Your task to perform on an android device: toggle location history Image 0: 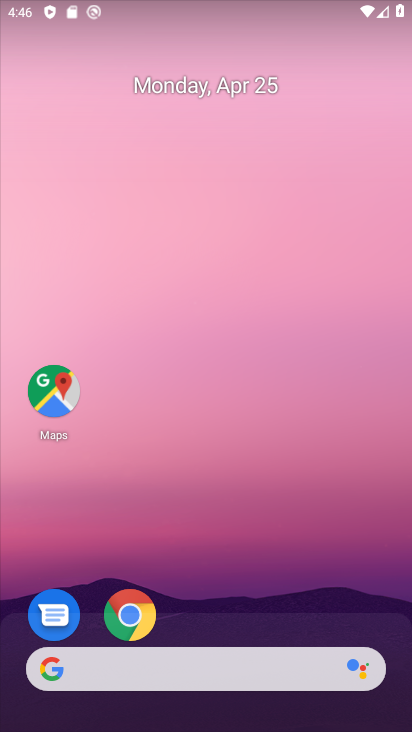
Step 0: drag from (246, 418) to (274, 7)
Your task to perform on an android device: toggle location history Image 1: 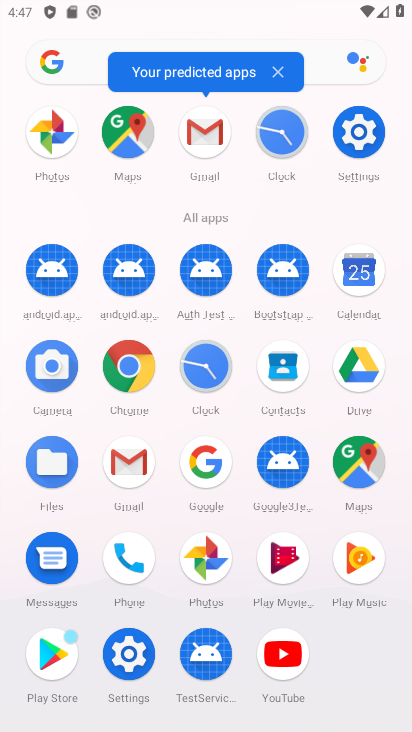
Step 1: click (347, 159)
Your task to perform on an android device: toggle location history Image 2: 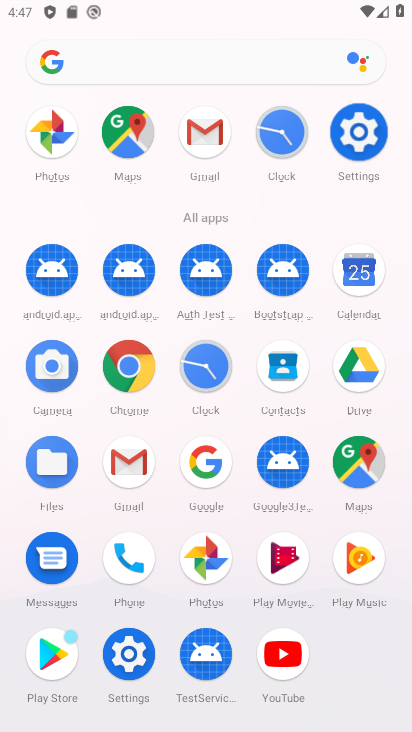
Step 2: click (356, 140)
Your task to perform on an android device: toggle location history Image 3: 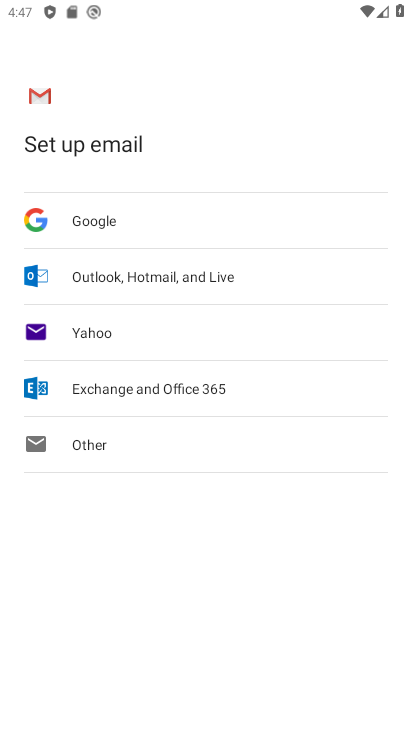
Step 3: press back button
Your task to perform on an android device: toggle location history Image 4: 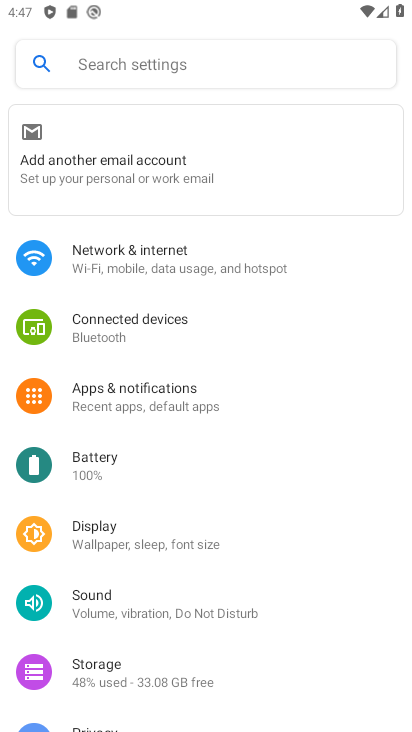
Step 4: drag from (181, 610) to (228, 203)
Your task to perform on an android device: toggle location history Image 5: 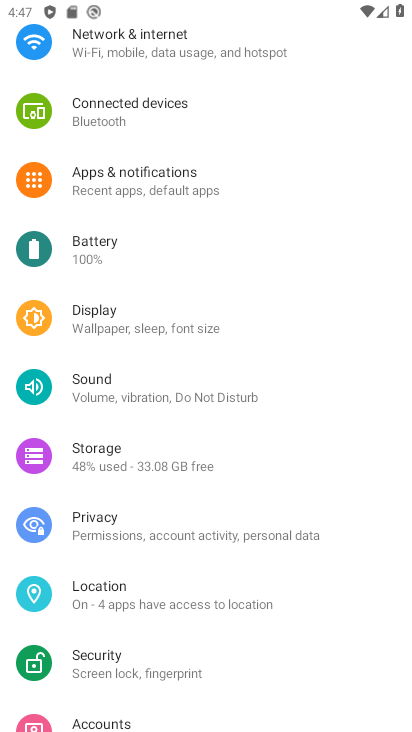
Step 5: click (233, 596)
Your task to perform on an android device: toggle location history Image 6: 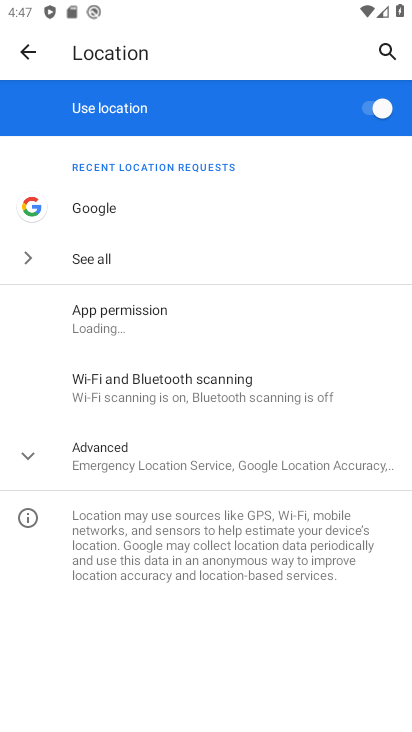
Step 6: click (371, 116)
Your task to perform on an android device: toggle location history Image 7: 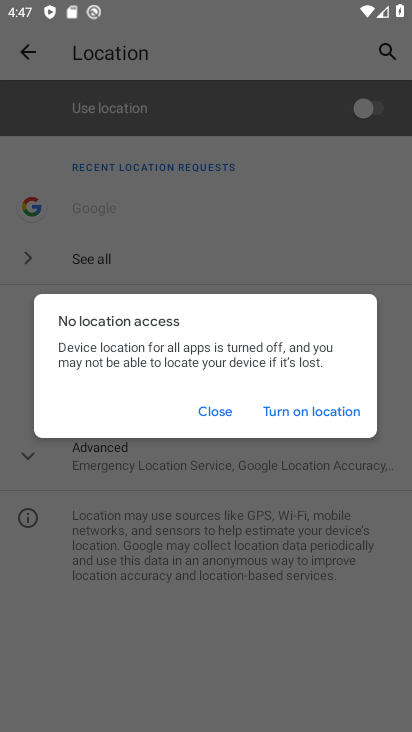
Step 7: task complete